Your task to perform on an android device: turn on data saver in the chrome app Image 0: 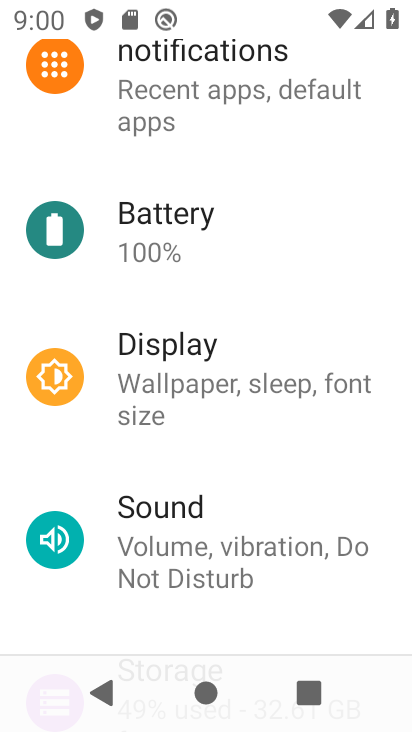
Step 0: press home button
Your task to perform on an android device: turn on data saver in the chrome app Image 1: 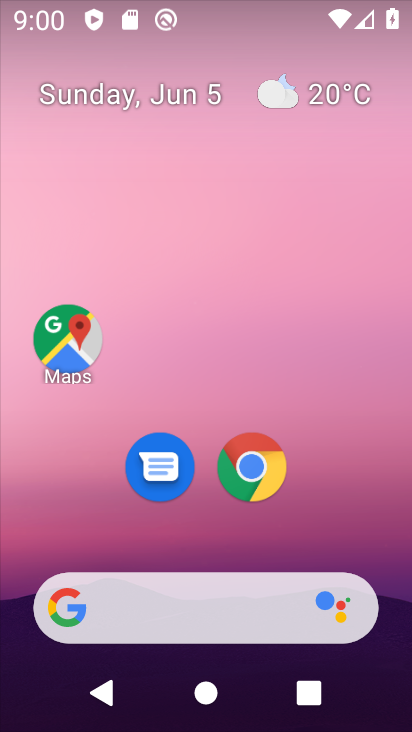
Step 1: click (250, 466)
Your task to perform on an android device: turn on data saver in the chrome app Image 2: 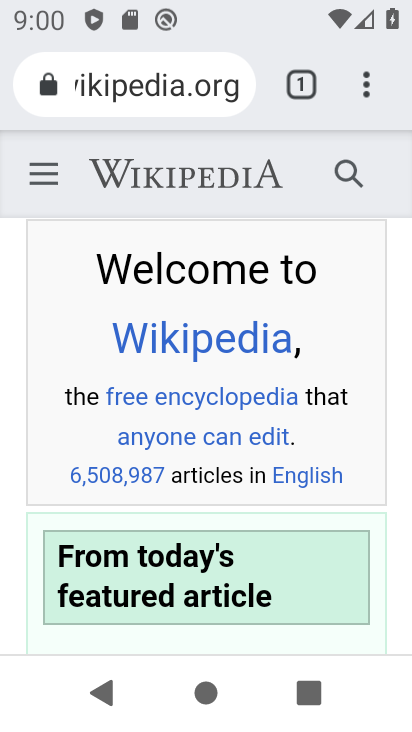
Step 2: click (374, 91)
Your task to perform on an android device: turn on data saver in the chrome app Image 3: 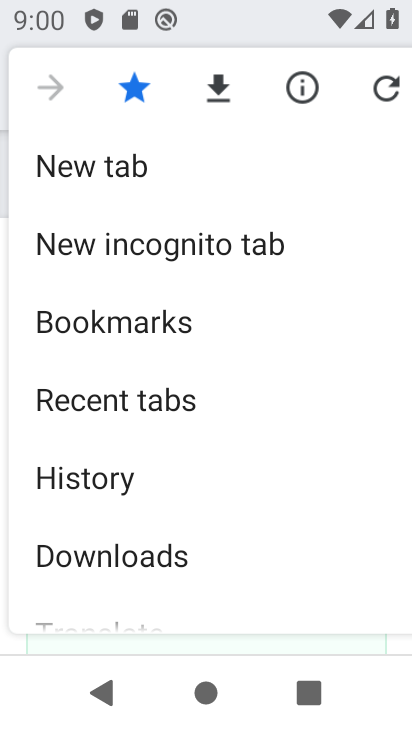
Step 3: drag from (261, 504) to (253, 240)
Your task to perform on an android device: turn on data saver in the chrome app Image 4: 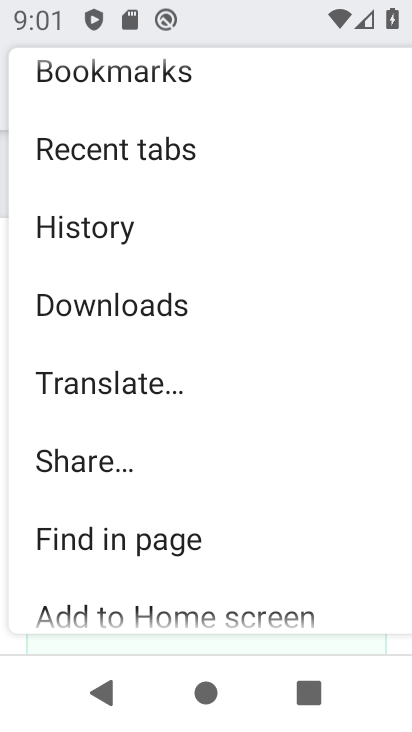
Step 4: drag from (139, 590) to (134, 213)
Your task to perform on an android device: turn on data saver in the chrome app Image 5: 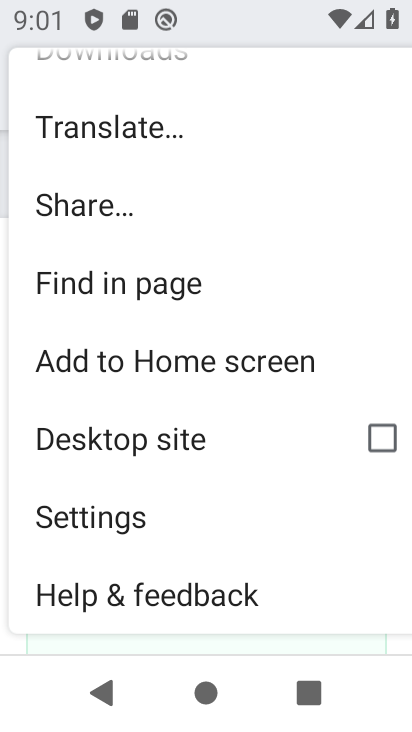
Step 5: click (125, 515)
Your task to perform on an android device: turn on data saver in the chrome app Image 6: 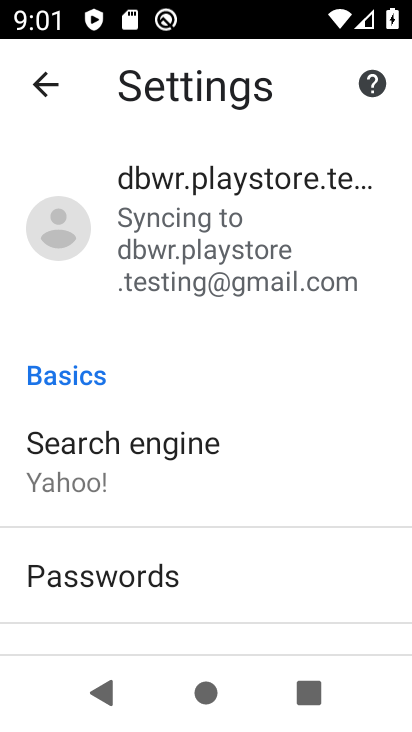
Step 6: drag from (115, 528) to (134, 138)
Your task to perform on an android device: turn on data saver in the chrome app Image 7: 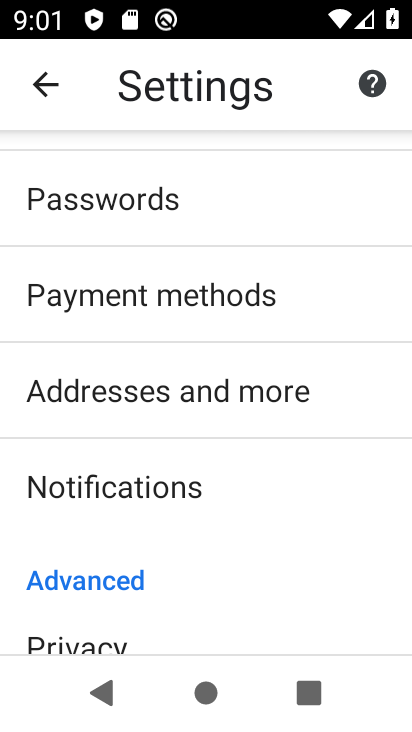
Step 7: drag from (216, 520) to (205, 141)
Your task to perform on an android device: turn on data saver in the chrome app Image 8: 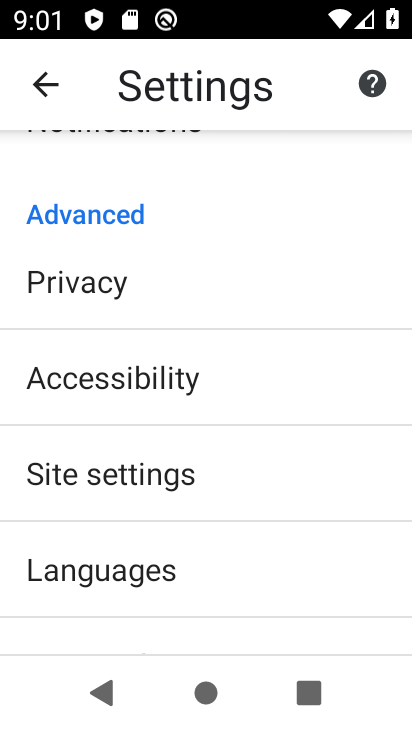
Step 8: drag from (136, 547) to (135, 315)
Your task to perform on an android device: turn on data saver in the chrome app Image 9: 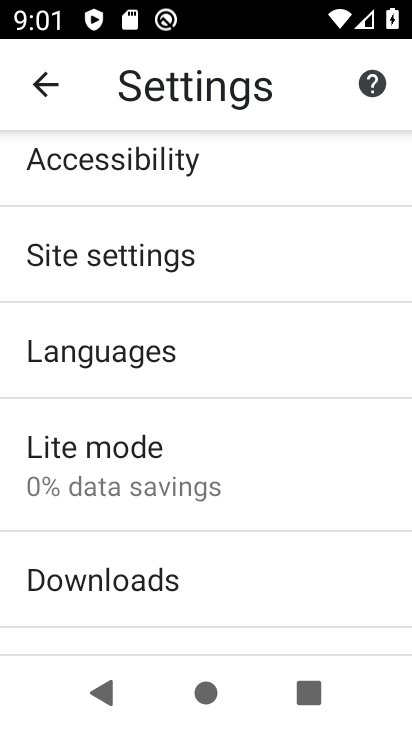
Step 9: click (144, 454)
Your task to perform on an android device: turn on data saver in the chrome app Image 10: 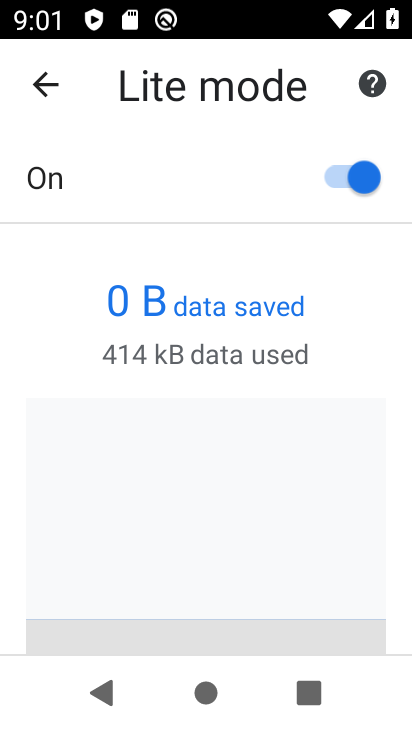
Step 10: task complete